Your task to perform on an android device: Google the capital of Argentina Image 0: 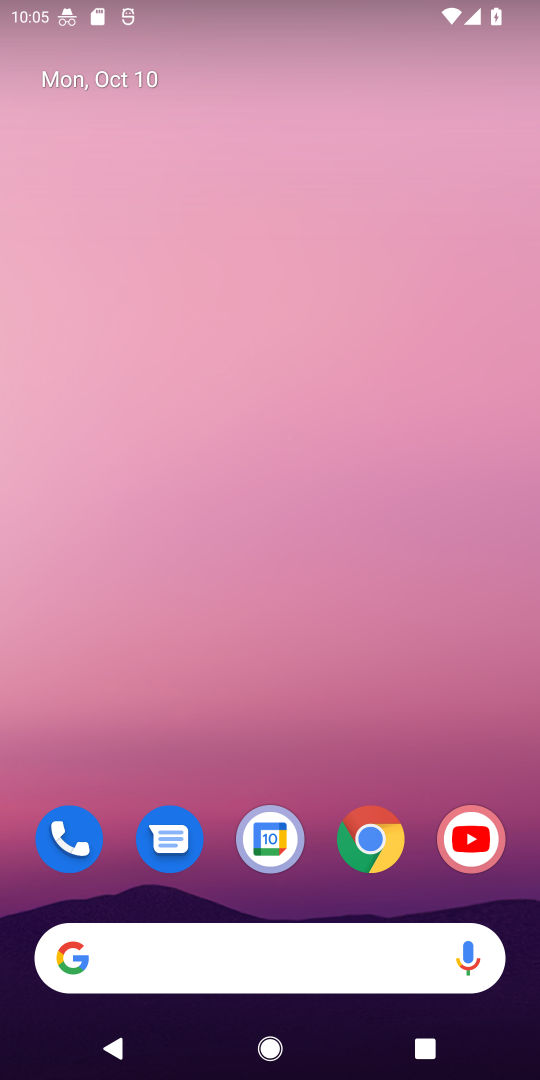
Step 0: drag from (316, 863) to (318, 176)
Your task to perform on an android device: Google the capital of Argentina Image 1: 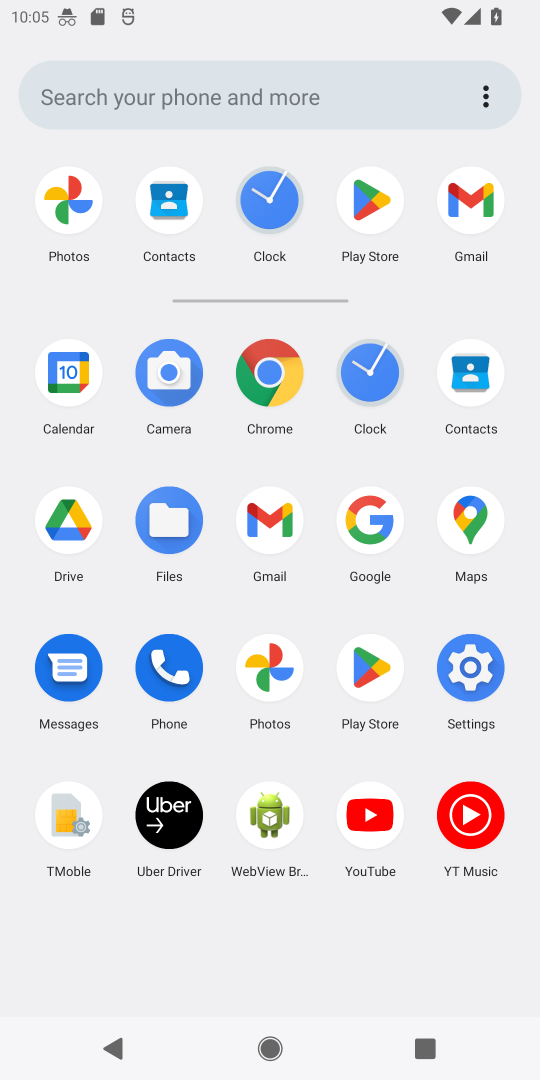
Step 1: click (273, 370)
Your task to perform on an android device: Google the capital of Argentina Image 2: 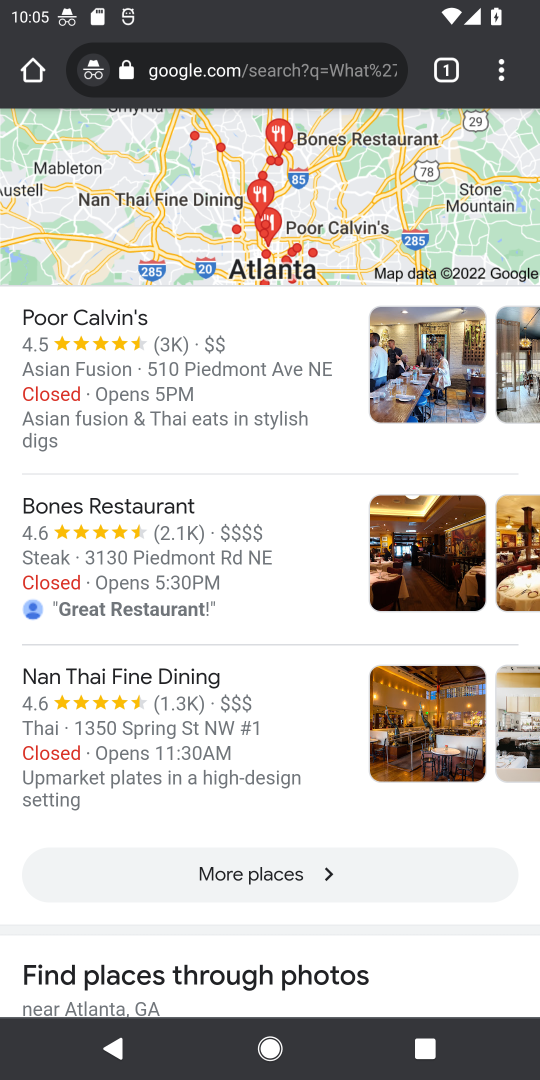
Step 2: click (198, 80)
Your task to perform on an android device: Google the capital of Argentina Image 3: 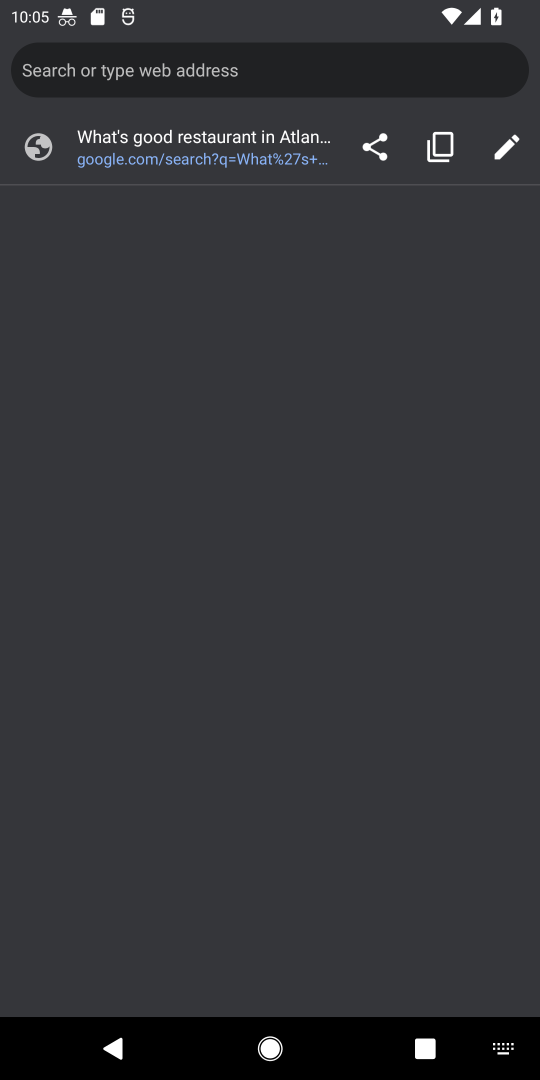
Step 3: type "The capital of Argentina"
Your task to perform on an android device: Google the capital of Argentina Image 4: 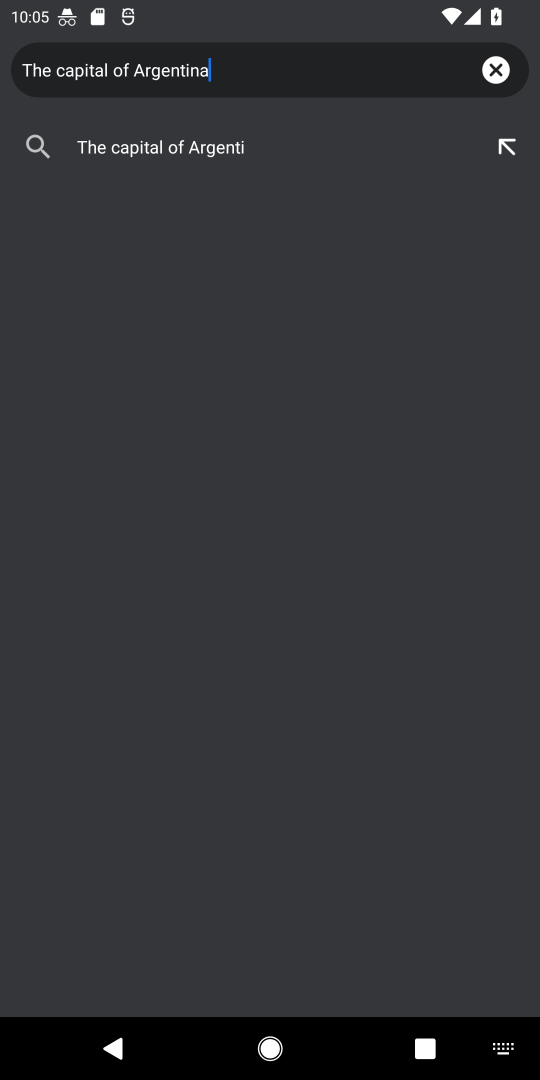
Step 4: press enter
Your task to perform on an android device: Google the capital of Argentina Image 5: 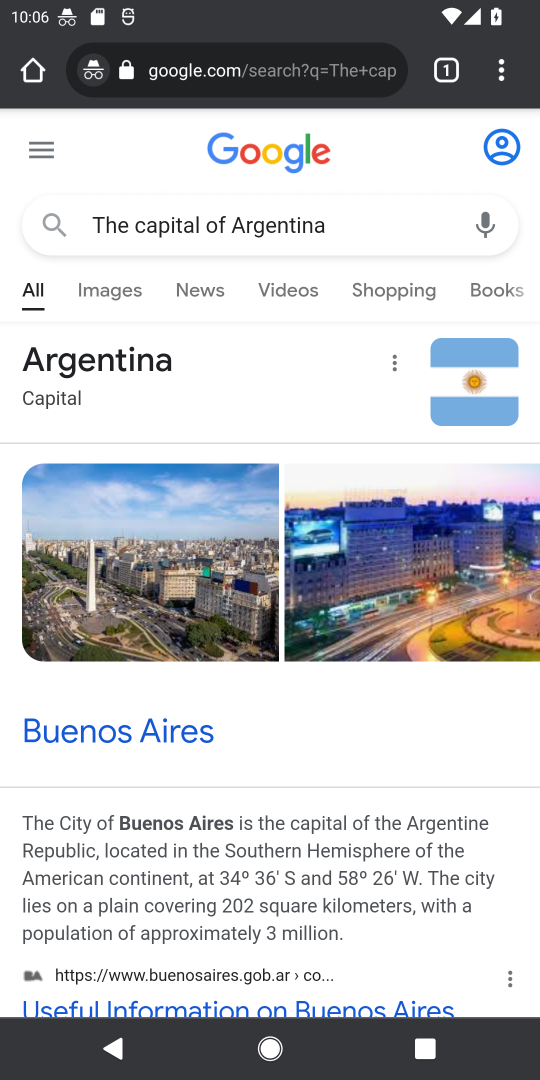
Step 5: task complete